Your task to perform on an android device: add a contact Image 0: 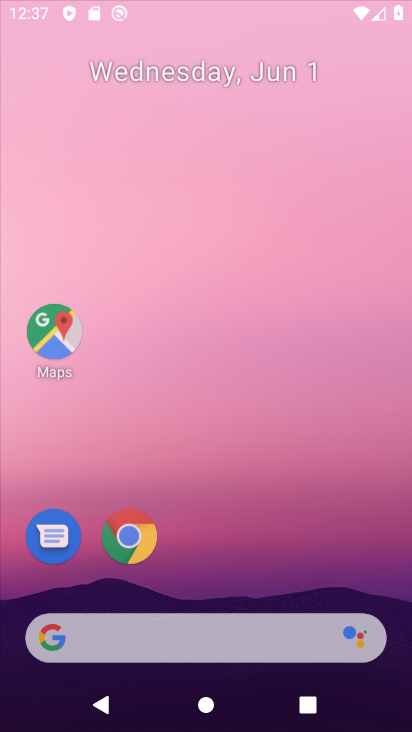
Step 0: click (320, 259)
Your task to perform on an android device: add a contact Image 1: 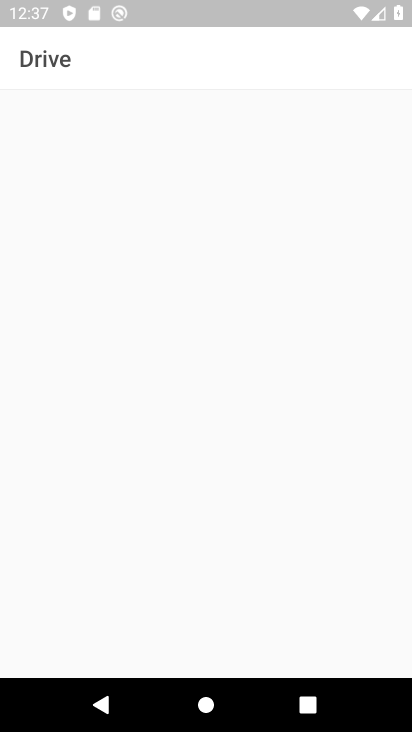
Step 1: drag from (7, 268) to (185, 282)
Your task to perform on an android device: add a contact Image 2: 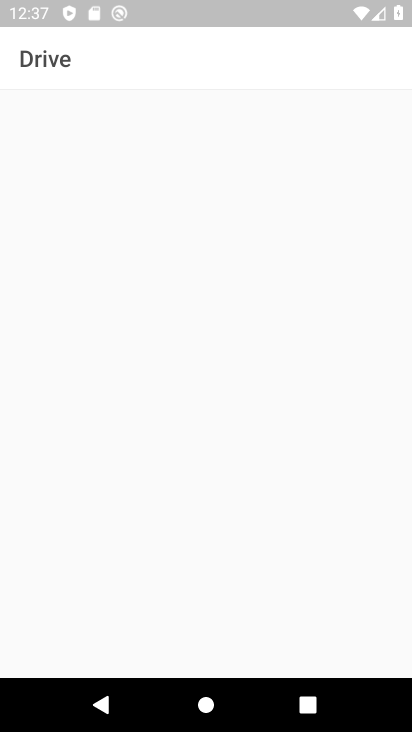
Step 2: press home button
Your task to perform on an android device: add a contact Image 3: 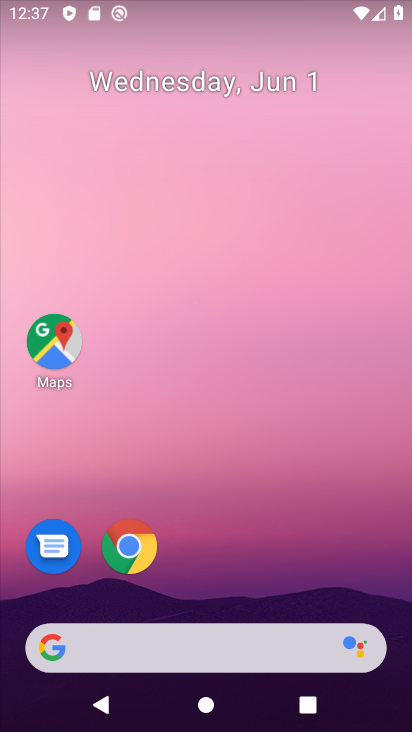
Step 3: drag from (323, 591) to (265, 82)
Your task to perform on an android device: add a contact Image 4: 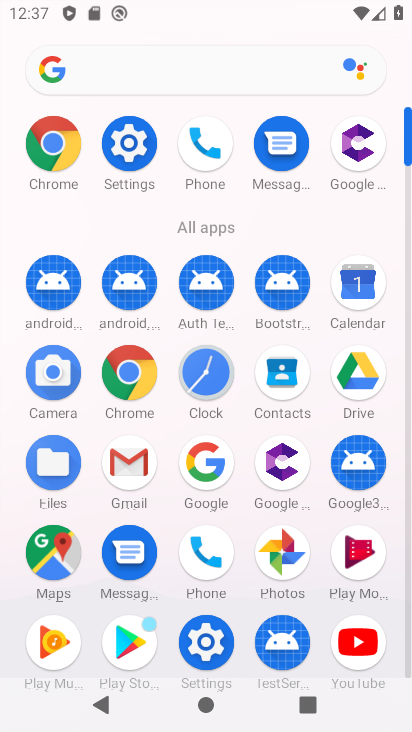
Step 4: click (259, 378)
Your task to perform on an android device: add a contact Image 5: 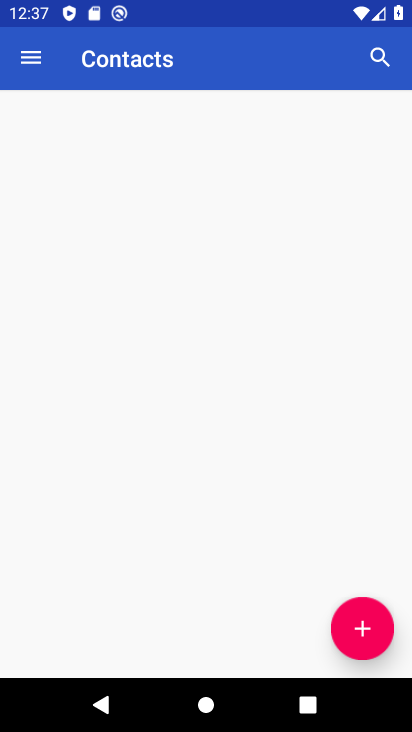
Step 5: click (259, 378)
Your task to perform on an android device: add a contact Image 6: 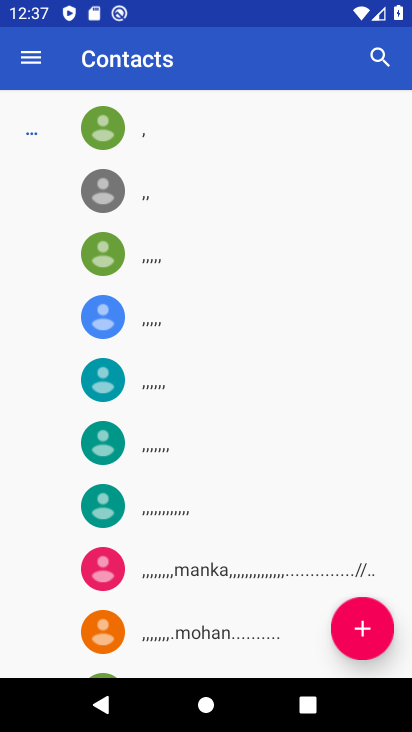
Step 6: click (363, 654)
Your task to perform on an android device: add a contact Image 7: 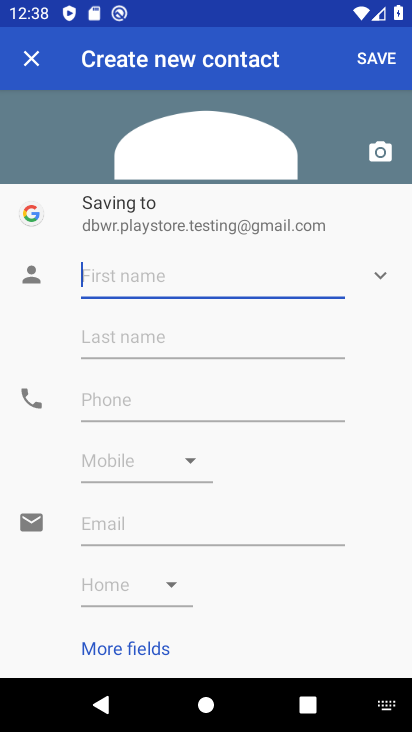
Step 7: type "ggg"
Your task to perform on an android device: add a contact Image 8: 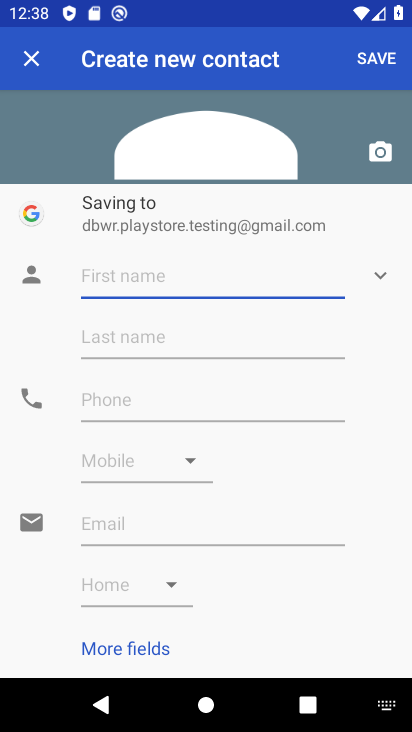
Step 8: click (155, 410)
Your task to perform on an android device: add a contact Image 9: 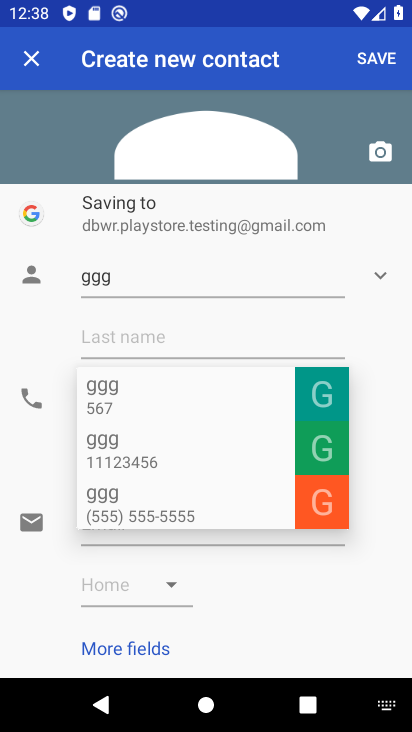
Step 9: task complete